Your task to perform on an android device: Go to Yahoo.com Image 0: 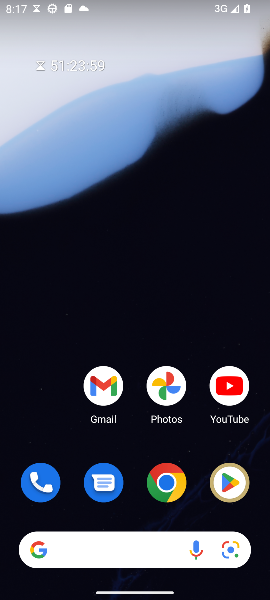
Step 0: drag from (123, 527) to (100, 108)
Your task to perform on an android device: Go to Yahoo.com Image 1: 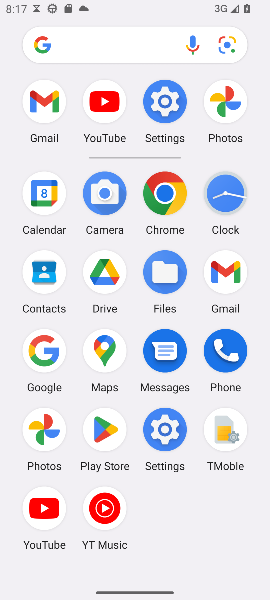
Step 1: click (155, 194)
Your task to perform on an android device: Go to Yahoo.com Image 2: 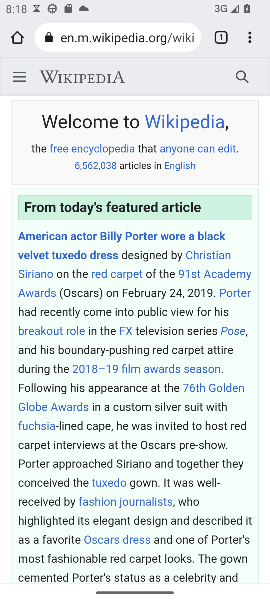
Step 2: click (191, 40)
Your task to perform on an android device: Go to Yahoo.com Image 3: 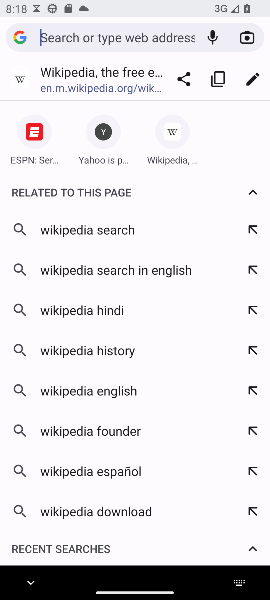
Step 3: type "Yahoo.com"
Your task to perform on an android device: Go to Yahoo.com Image 4: 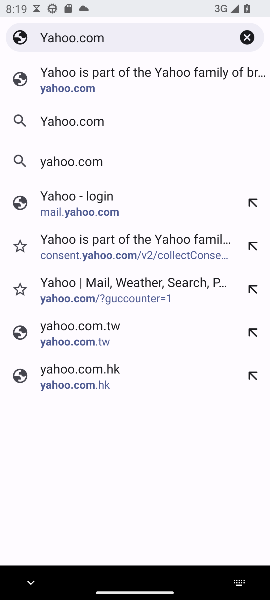
Step 4: press enter
Your task to perform on an android device: Go to Yahoo.com Image 5: 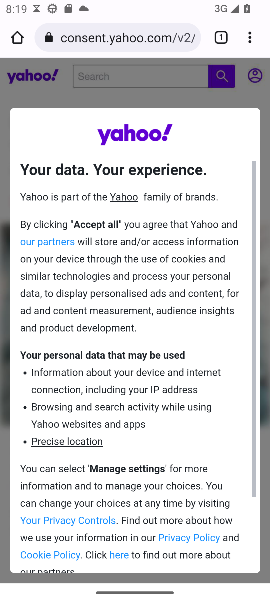
Step 5: task complete